Your task to perform on an android device: What's the weather going to be tomorrow? Image 0: 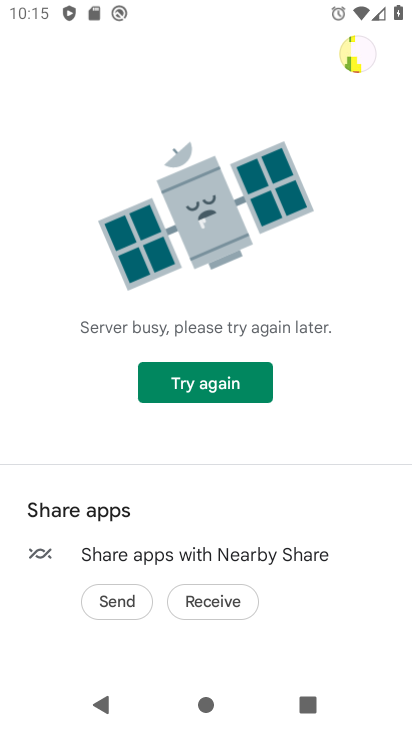
Step 0: press home button
Your task to perform on an android device: What's the weather going to be tomorrow? Image 1: 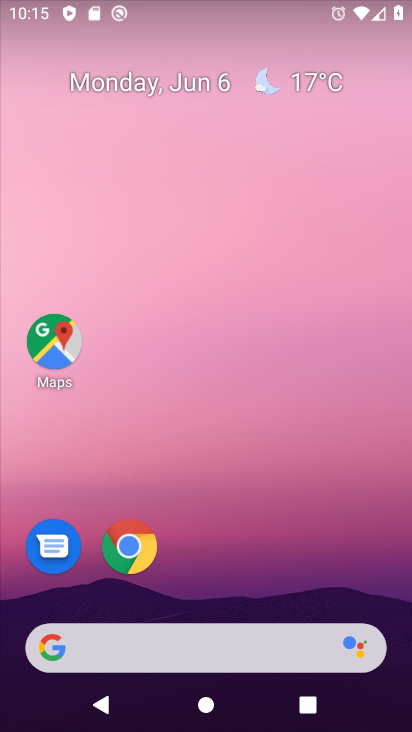
Step 1: click (278, 84)
Your task to perform on an android device: What's the weather going to be tomorrow? Image 2: 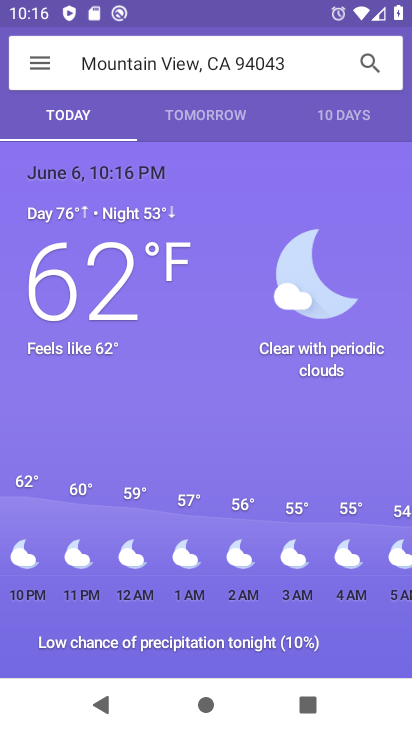
Step 2: click (192, 121)
Your task to perform on an android device: What's the weather going to be tomorrow? Image 3: 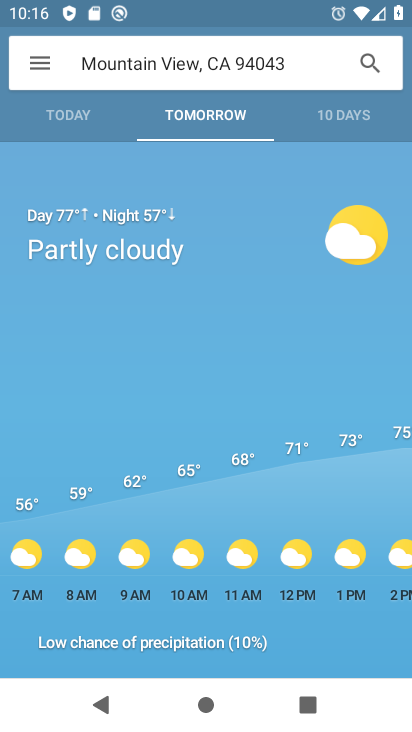
Step 3: task complete